Your task to perform on an android device: open sync settings in chrome Image 0: 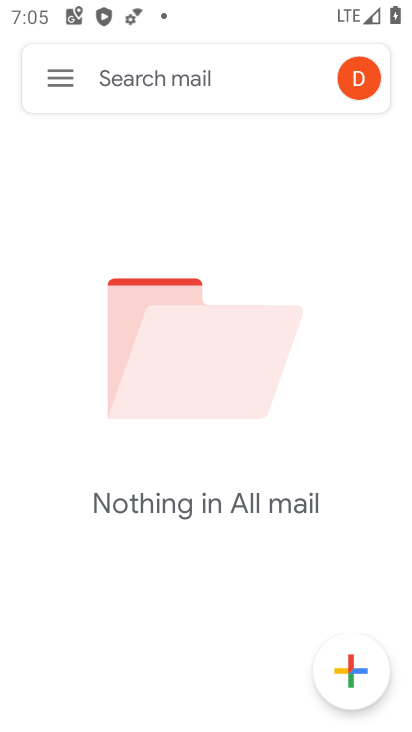
Step 0: press home button
Your task to perform on an android device: open sync settings in chrome Image 1: 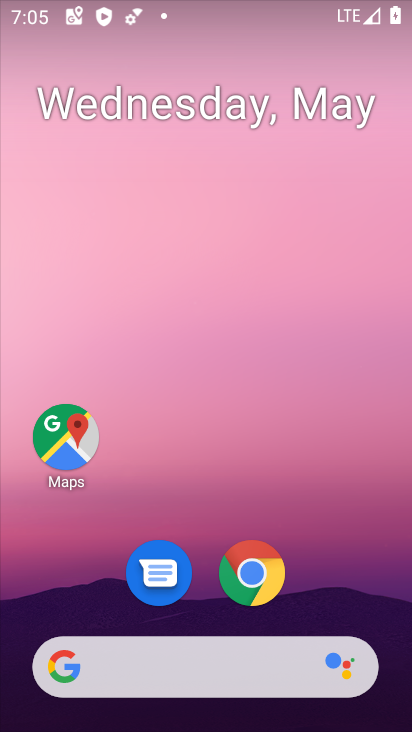
Step 1: click (263, 580)
Your task to perform on an android device: open sync settings in chrome Image 2: 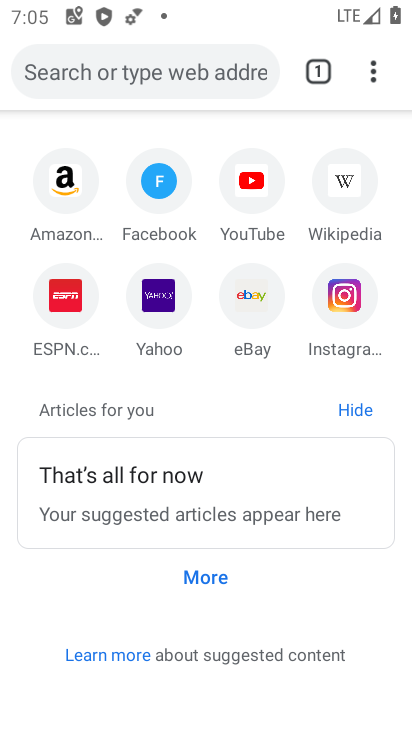
Step 2: click (375, 67)
Your task to perform on an android device: open sync settings in chrome Image 3: 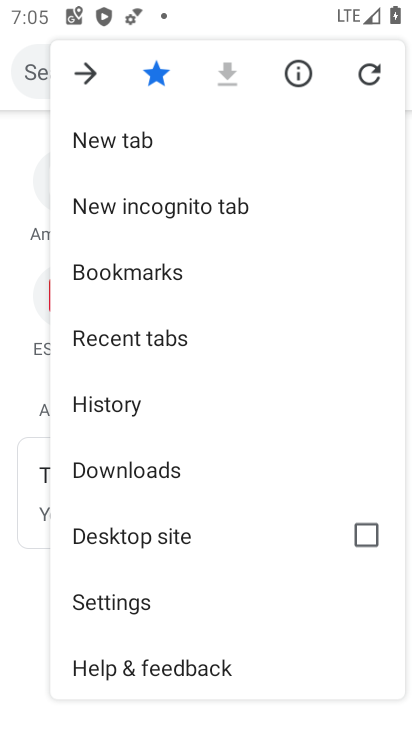
Step 3: click (118, 605)
Your task to perform on an android device: open sync settings in chrome Image 4: 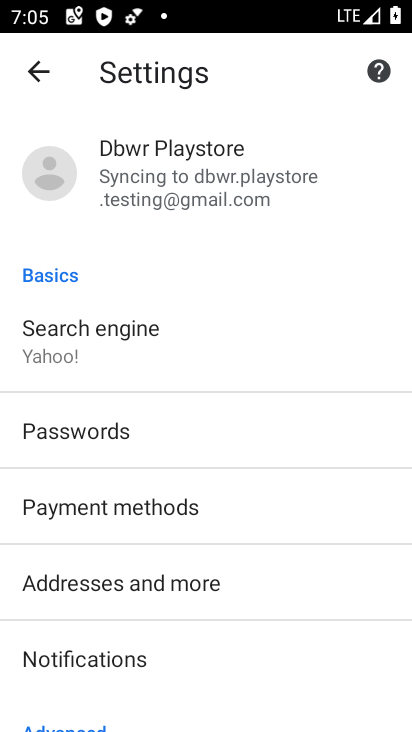
Step 4: click (183, 190)
Your task to perform on an android device: open sync settings in chrome Image 5: 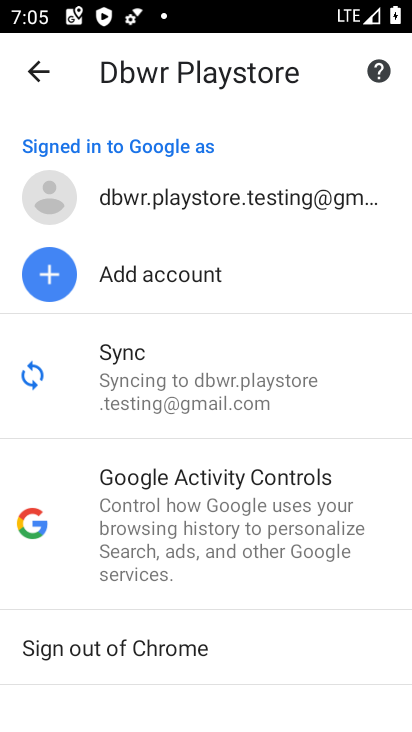
Step 5: click (156, 353)
Your task to perform on an android device: open sync settings in chrome Image 6: 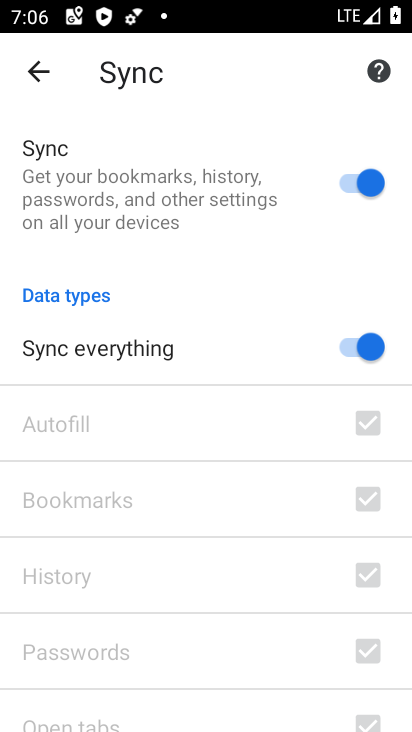
Step 6: task complete